Your task to perform on an android device: Open ESPN.com Image 0: 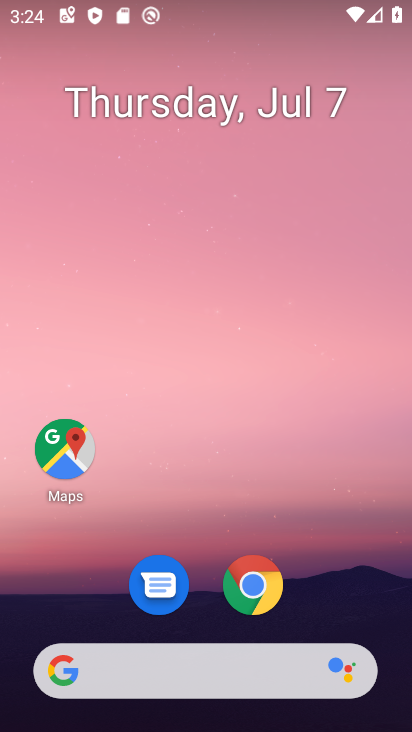
Step 0: click (225, 677)
Your task to perform on an android device: Open ESPN.com Image 1: 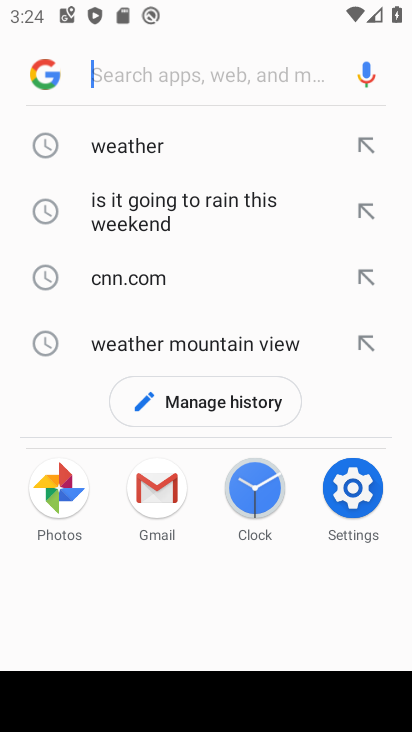
Step 1: type "espn.com"
Your task to perform on an android device: Open ESPN.com Image 2: 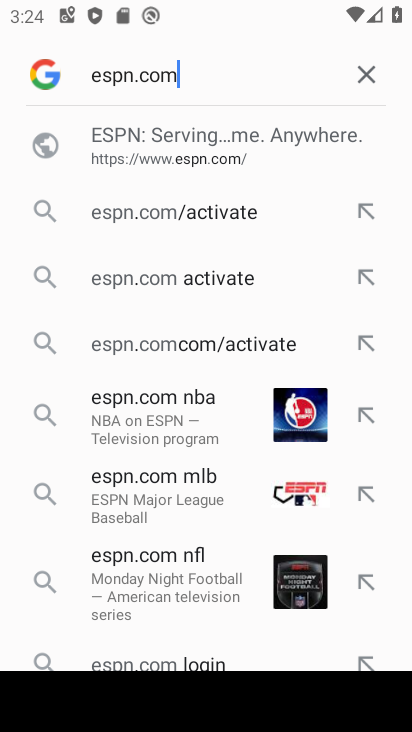
Step 2: click (114, 136)
Your task to perform on an android device: Open ESPN.com Image 3: 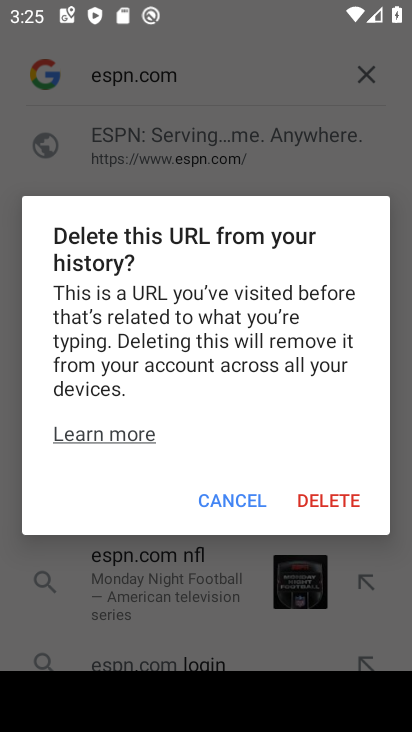
Step 3: click (227, 497)
Your task to perform on an android device: Open ESPN.com Image 4: 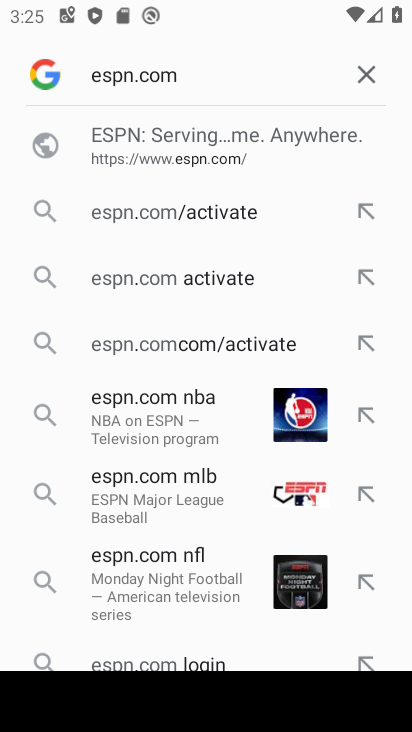
Step 4: click (152, 148)
Your task to perform on an android device: Open ESPN.com Image 5: 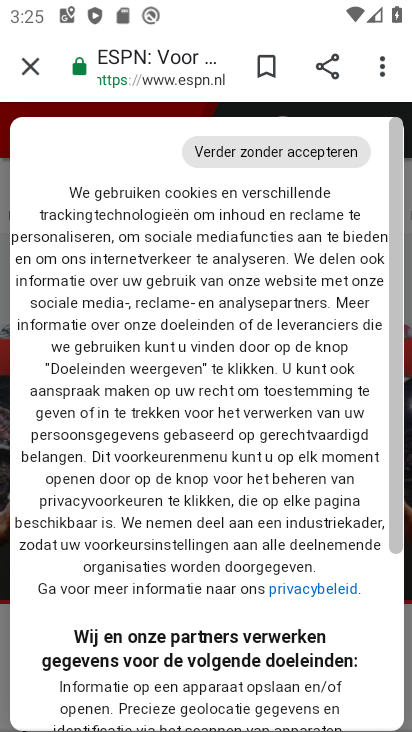
Step 5: task complete